Your task to perform on an android device: Is it going to rain this weekend? Image 0: 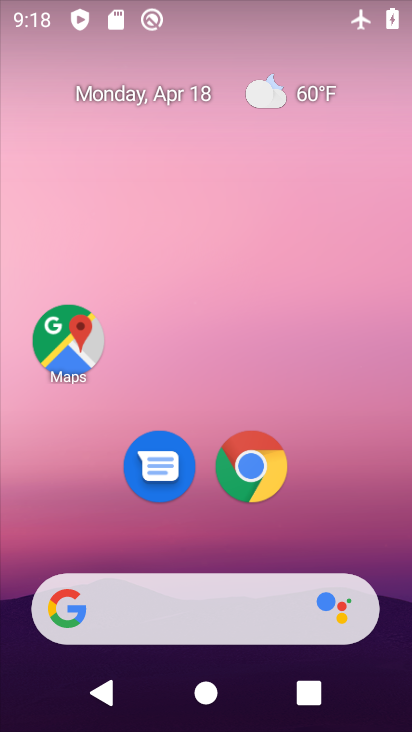
Step 0: click (280, 99)
Your task to perform on an android device: Is it going to rain this weekend? Image 1: 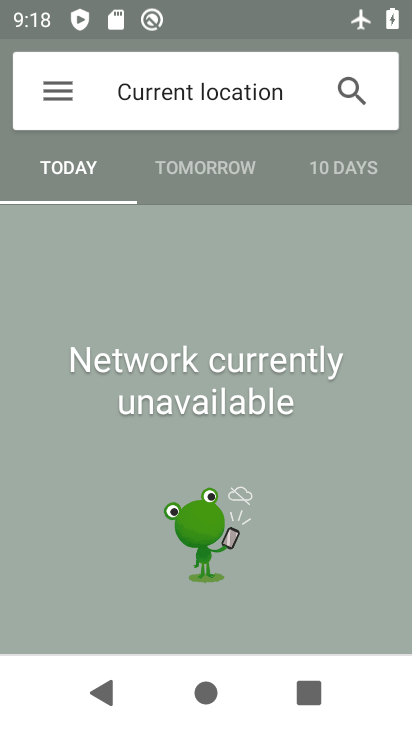
Step 1: task complete